Your task to perform on an android device: Open Chrome and go to settings Image 0: 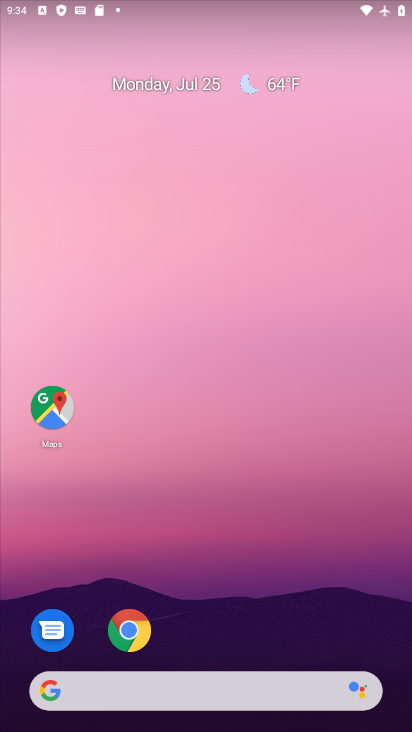
Step 0: click (129, 628)
Your task to perform on an android device: Open Chrome and go to settings Image 1: 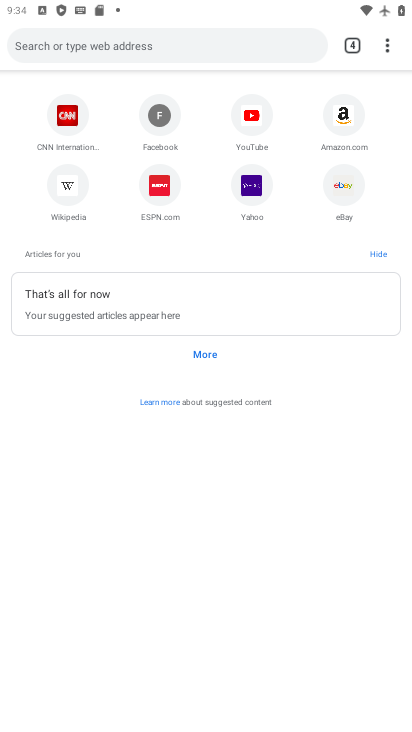
Step 1: click (386, 55)
Your task to perform on an android device: Open Chrome and go to settings Image 2: 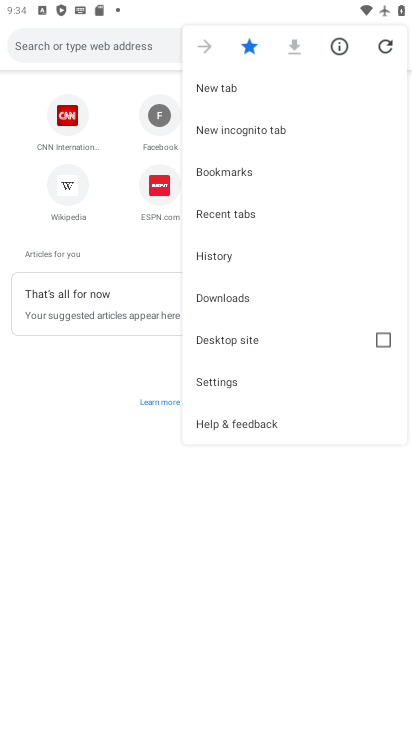
Step 2: click (229, 374)
Your task to perform on an android device: Open Chrome and go to settings Image 3: 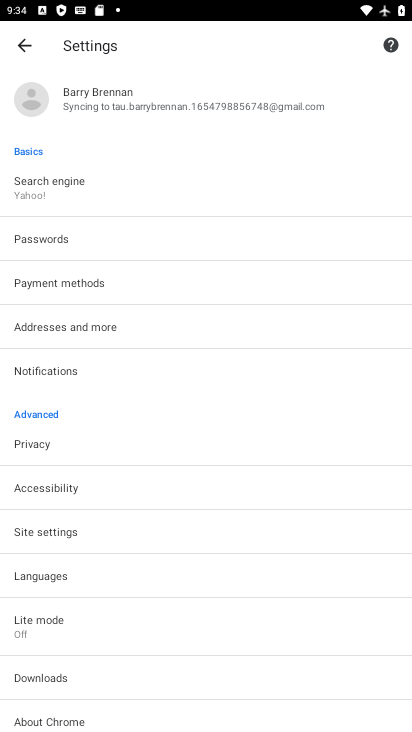
Step 3: task complete